Your task to perform on an android device: turn off location history Image 0: 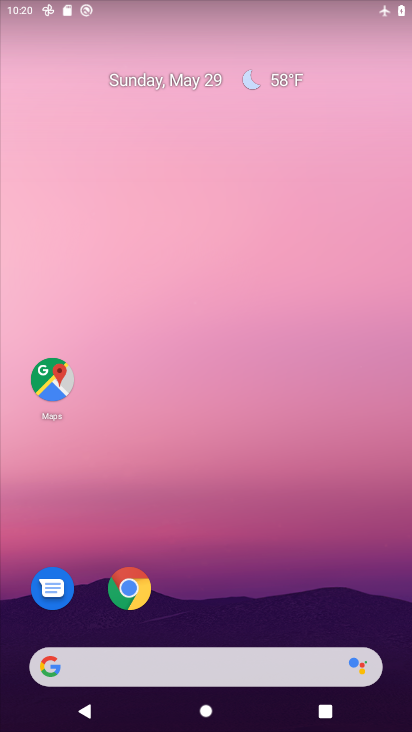
Step 0: drag from (269, 611) to (158, 91)
Your task to perform on an android device: turn off location history Image 1: 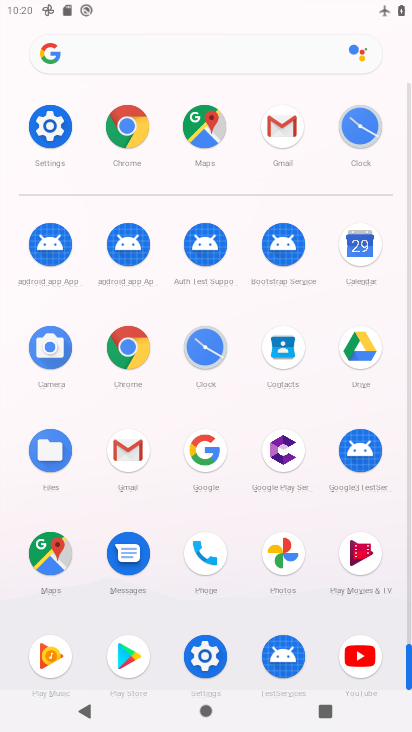
Step 1: click (54, 124)
Your task to perform on an android device: turn off location history Image 2: 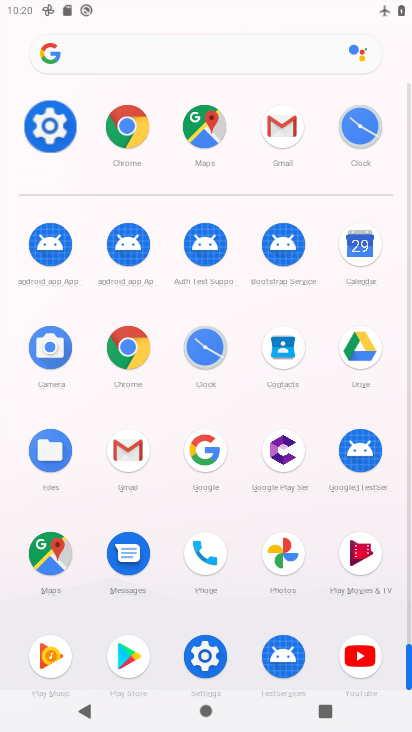
Step 2: click (54, 124)
Your task to perform on an android device: turn off location history Image 3: 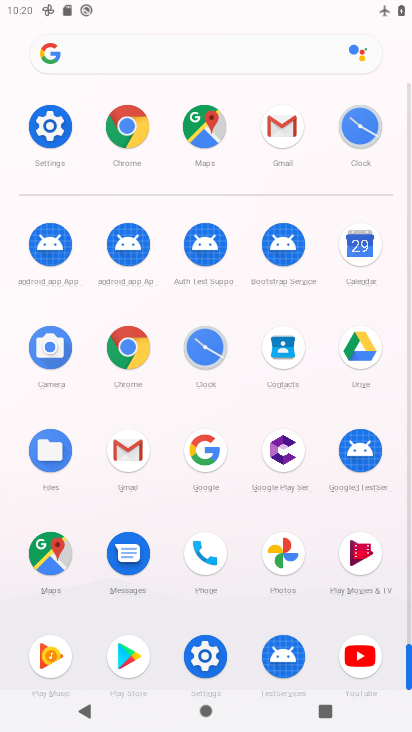
Step 3: click (57, 124)
Your task to perform on an android device: turn off location history Image 4: 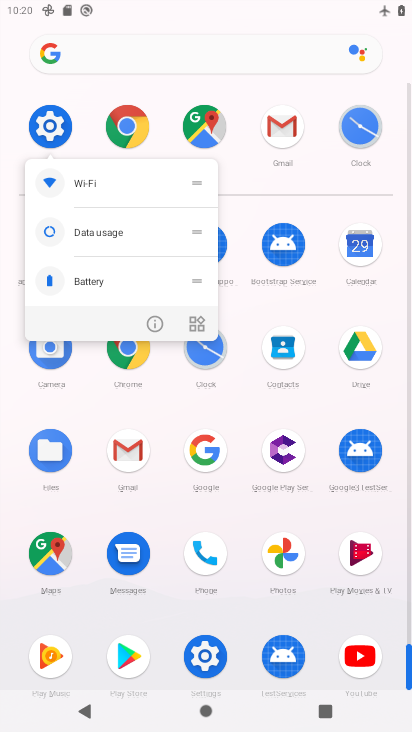
Step 4: click (56, 131)
Your task to perform on an android device: turn off location history Image 5: 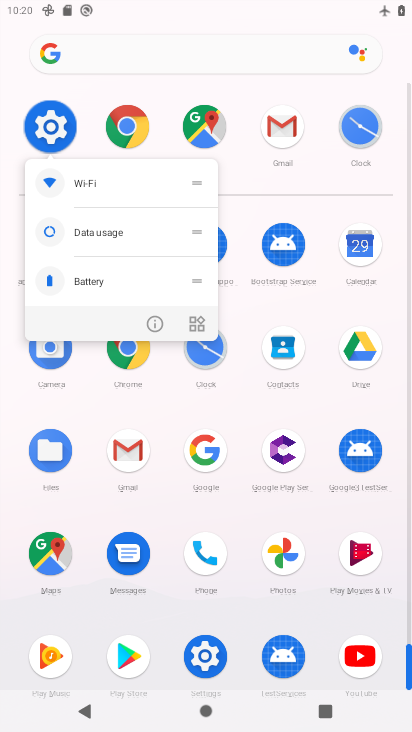
Step 5: click (55, 130)
Your task to perform on an android device: turn off location history Image 6: 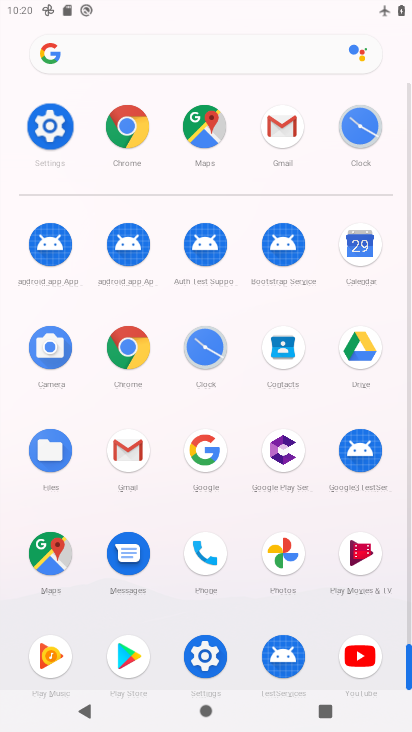
Step 6: click (55, 130)
Your task to perform on an android device: turn off location history Image 7: 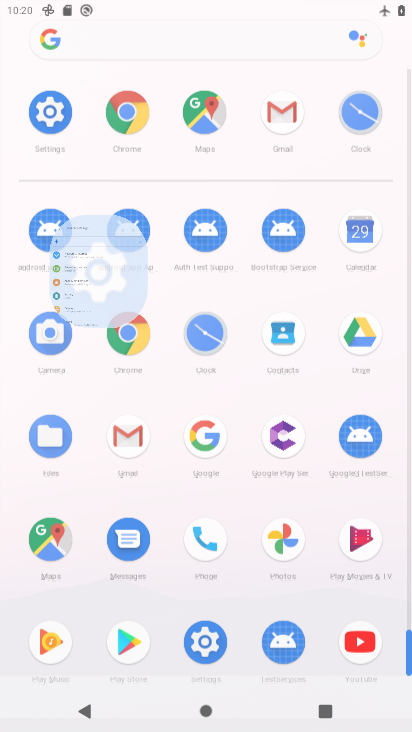
Step 7: click (55, 130)
Your task to perform on an android device: turn off location history Image 8: 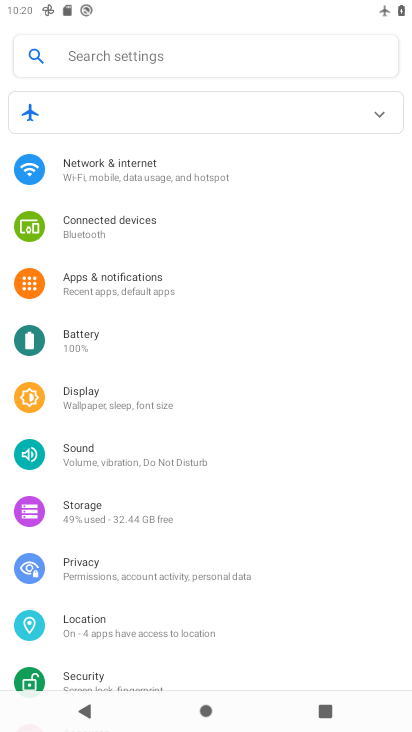
Step 8: click (51, 137)
Your task to perform on an android device: turn off location history Image 9: 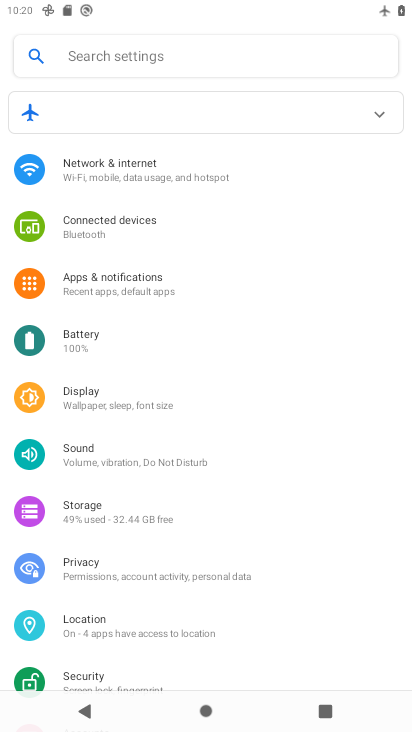
Step 9: click (51, 137)
Your task to perform on an android device: turn off location history Image 10: 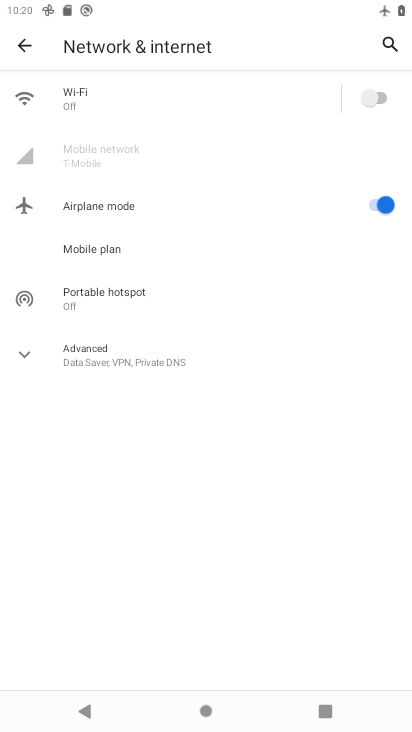
Step 10: click (23, 44)
Your task to perform on an android device: turn off location history Image 11: 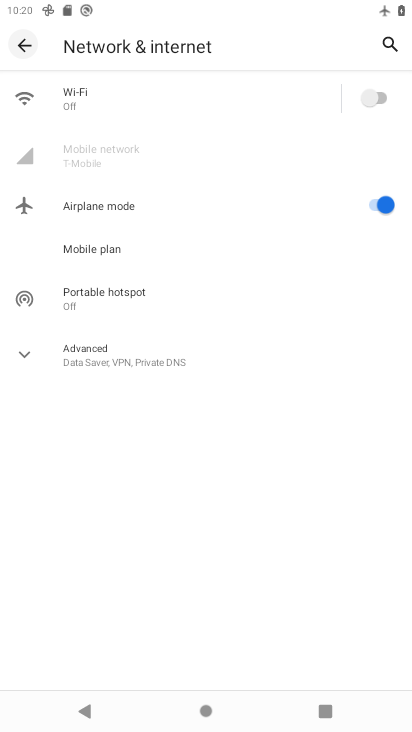
Step 11: click (21, 44)
Your task to perform on an android device: turn off location history Image 12: 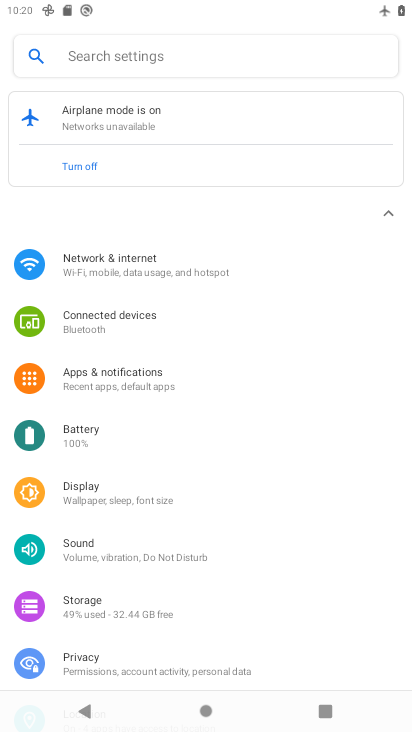
Step 12: drag from (181, 516) to (153, 140)
Your task to perform on an android device: turn off location history Image 13: 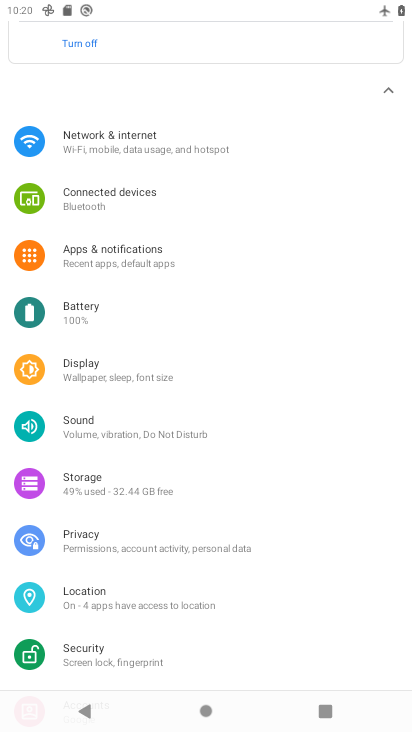
Step 13: drag from (114, 447) to (109, 108)
Your task to perform on an android device: turn off location history Image 14: 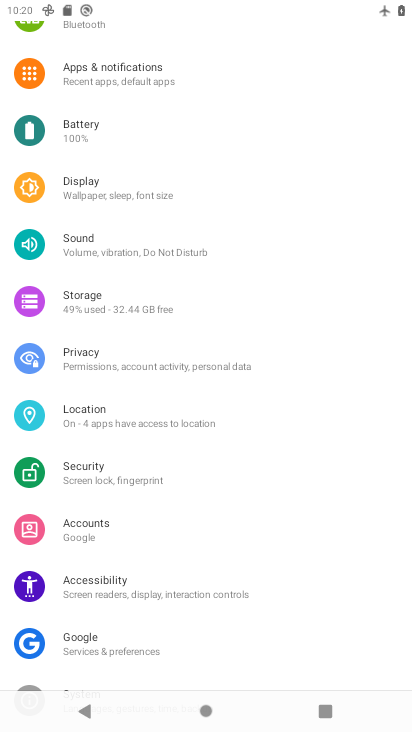
Step 14: click (84, 416)
Your task to perform on an android device: turn off location history Image 15: 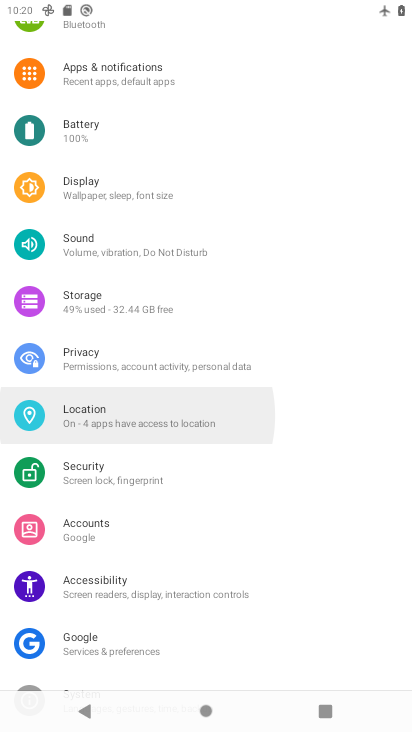
Step 15: click (84, 416)
Your task to perform on an android device: turn off location history Image 16: 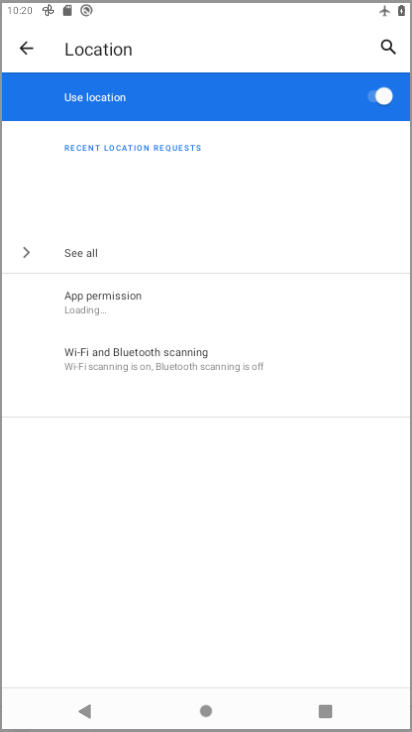
Step 16: click (79, 411)
Your task to perform on an android device: turn off location history Image 17: 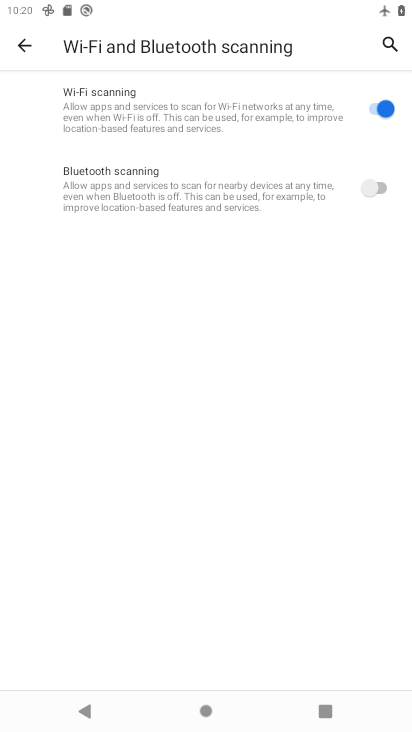
Step 17: click (384, 108)
Your task to perform on an android device: turn off location history Image 18: 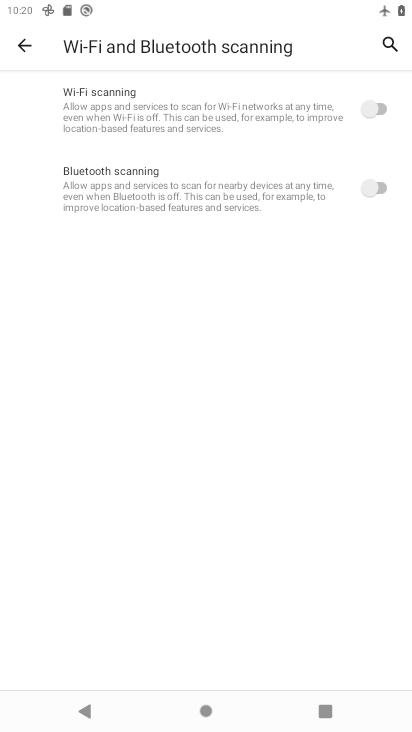
Step 18: task complete